Your task to perform on an android device: turn on data saver in the chrome app Image 0: 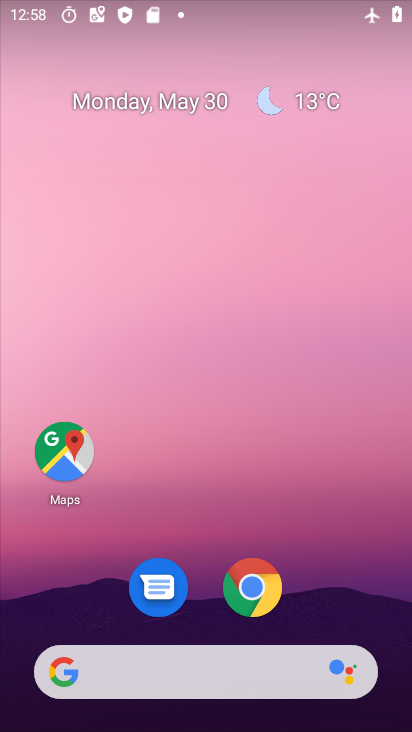
Step 0: drag from (350, 515) to (365, 16)
Your task to perform on an android device: turn on data saver in the chrome app Image 1: 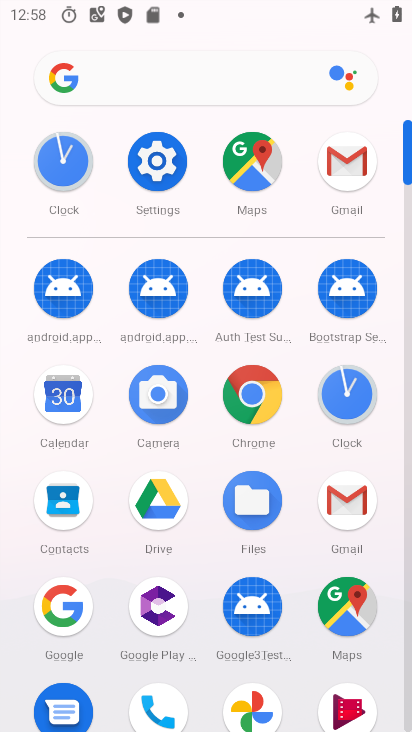
Step 1: click (247, 396)
Your task to perform on an android device: turn on data saver in the chrome app Image 2: 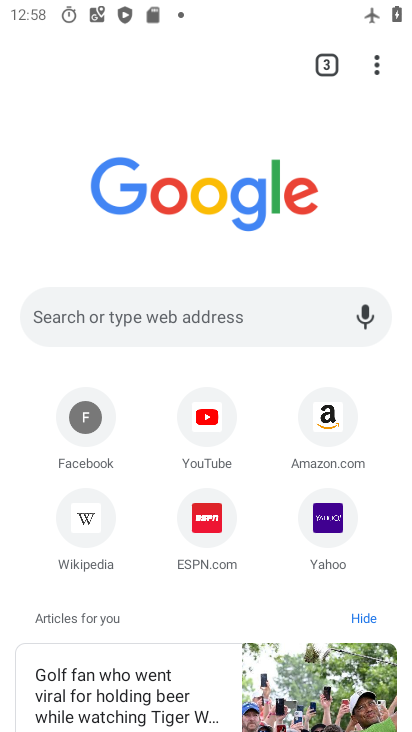
Step 2: click (380, 65)
Your task to perform on an android device: turn on data saver in the chrome app Image 3: 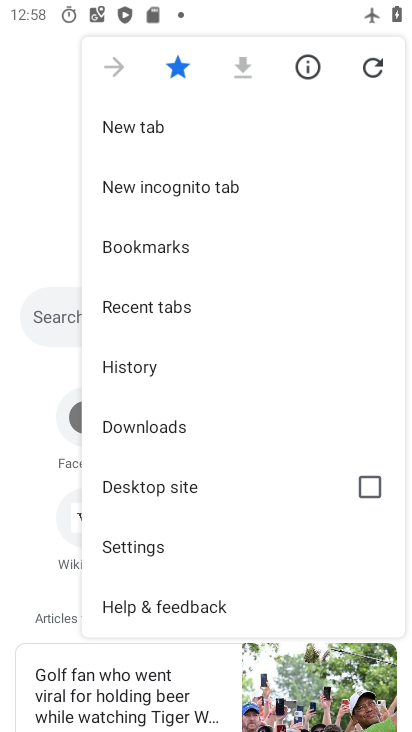
Step 3: click (182, 542)
Your task to perform on an android device: turn on data saver in the chrome app Image 4: 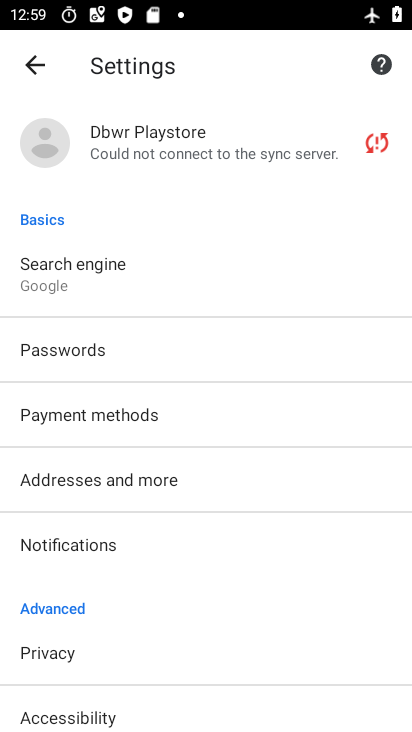
Step 4: drag from (241, 642) to (235, 157)
Your task to perform on an android device: turn on data saver in the chrome app Image 5: 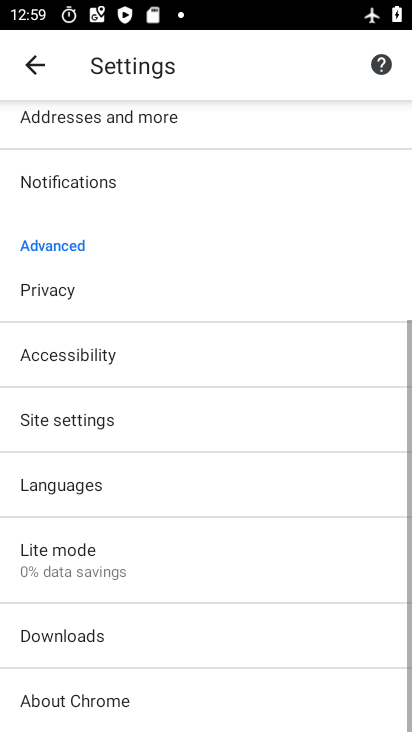
Step 5: click (109, 562)
Your task to perform on an android device: turn on data saver in the chrome app Image 6: 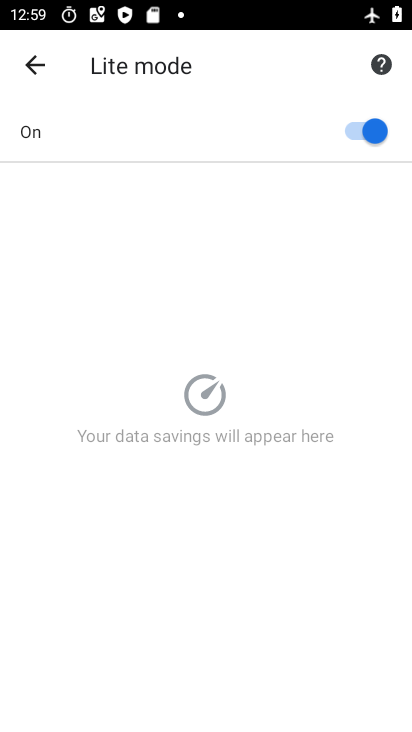
Step 6: task complete